Your task to perform on an android device: Toggle the flashlight Image 0: 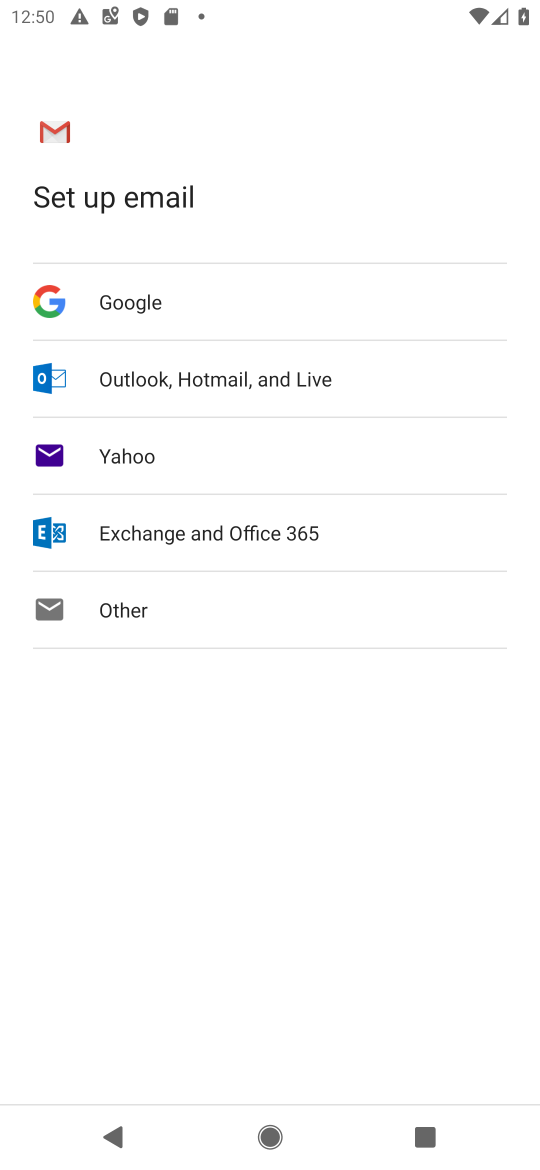
Step 0: press back button
Your task to perform on an android device: Toggle the flashlight Image 1: 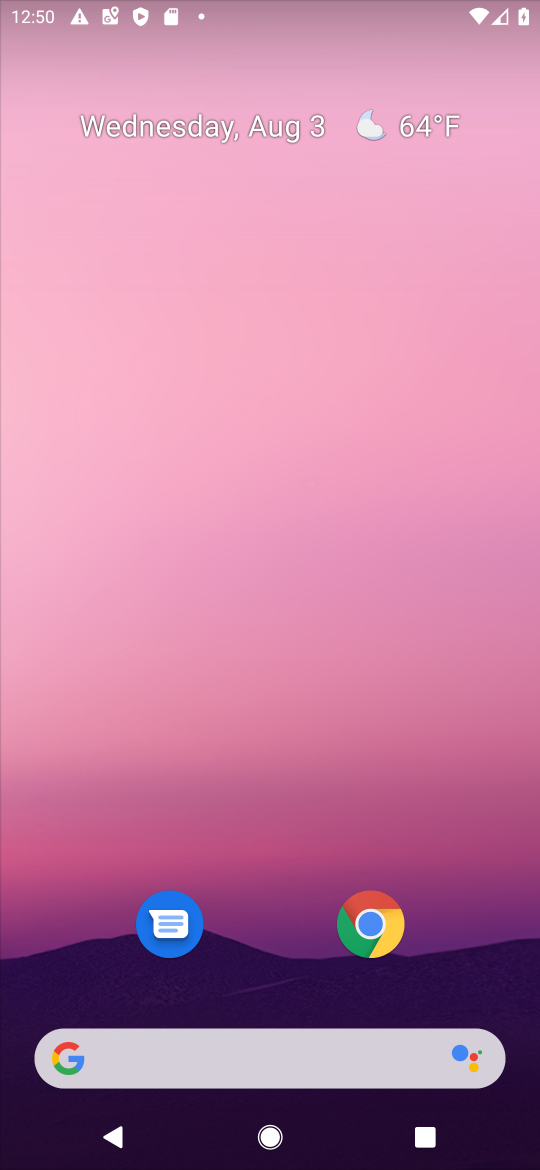
Step 1: drag from (270, 961) to (367, 102)
Your task to perform on an android device: Toggle the flashlight Image 2: 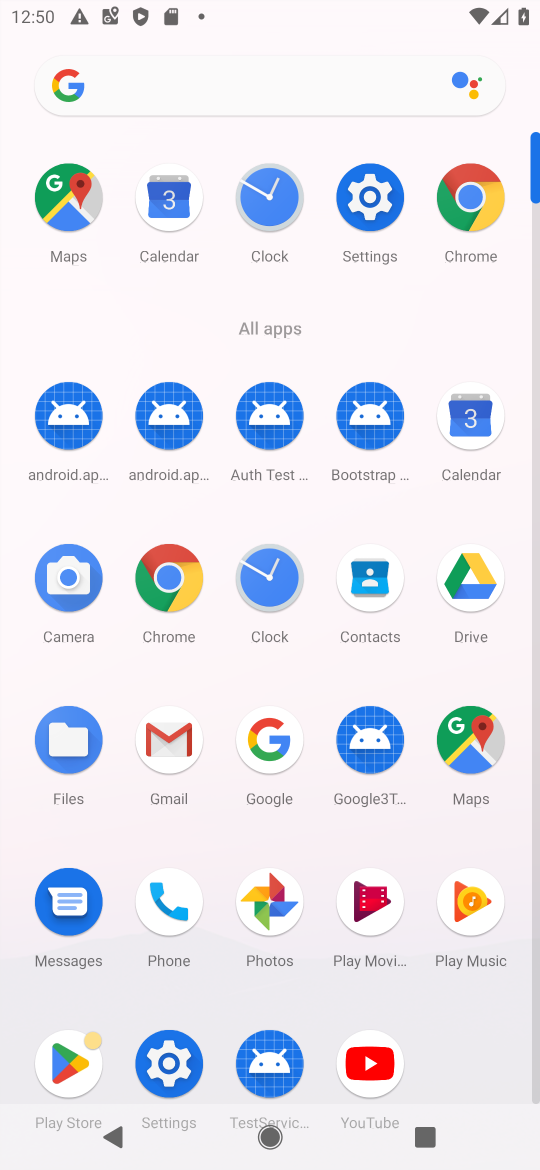
Step 2: click (369, 200)
Your task to perform on an android device: Toggle the flashlight Image 3: 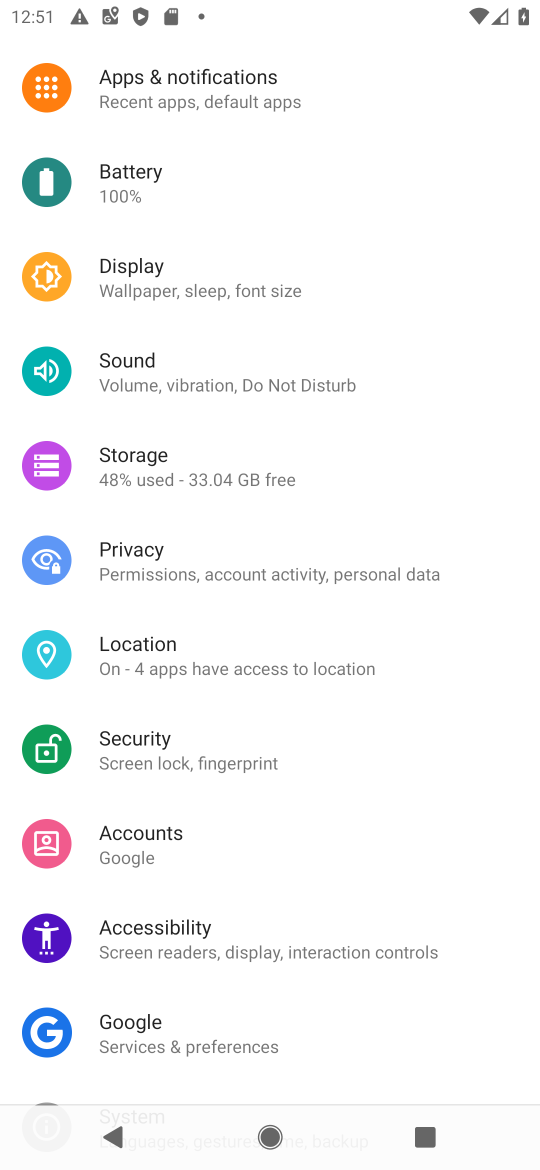
Step 3: drag from (294, 218) to (316, 917)
Your task to perform on an android device: Toggle the flashlight Image 4: 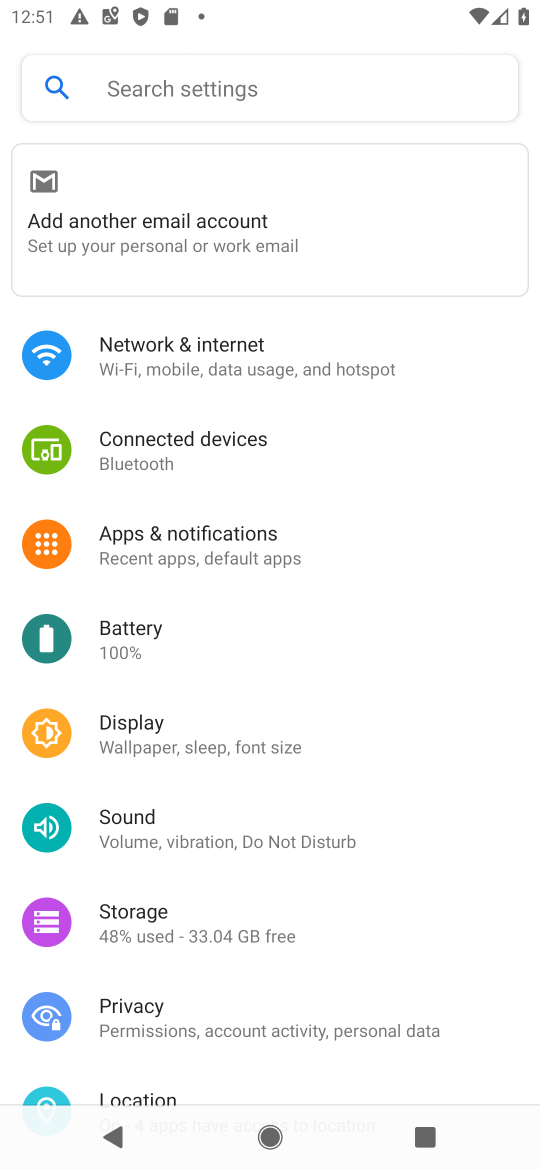
Step 4: click (226, 95)
Your task to perform on an android device: Toggle the flashlight Image 5: 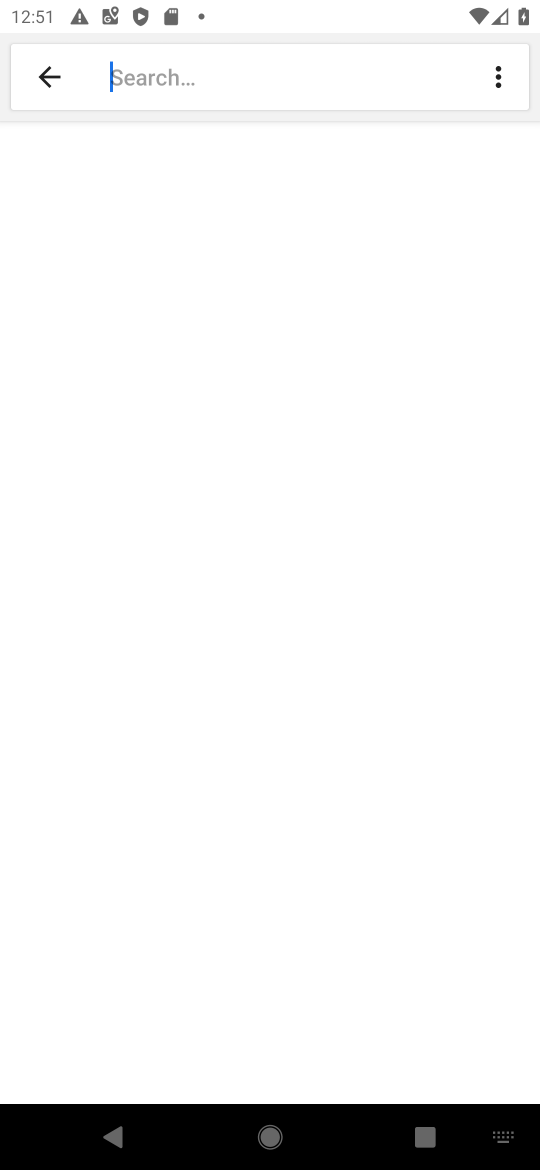
Step 5: type "flashlight"
Your task to perform on an android device: Toggle the flashlight Image 6: 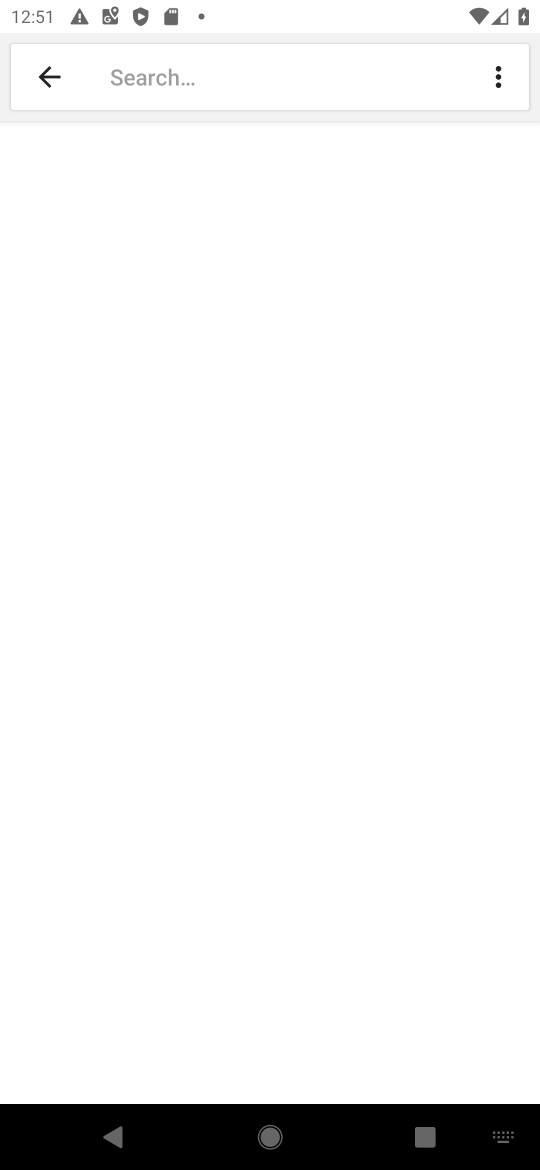
Step 6: click (405, 358)
Your task to perform on an android device: Toggle the flashlight Image 7: 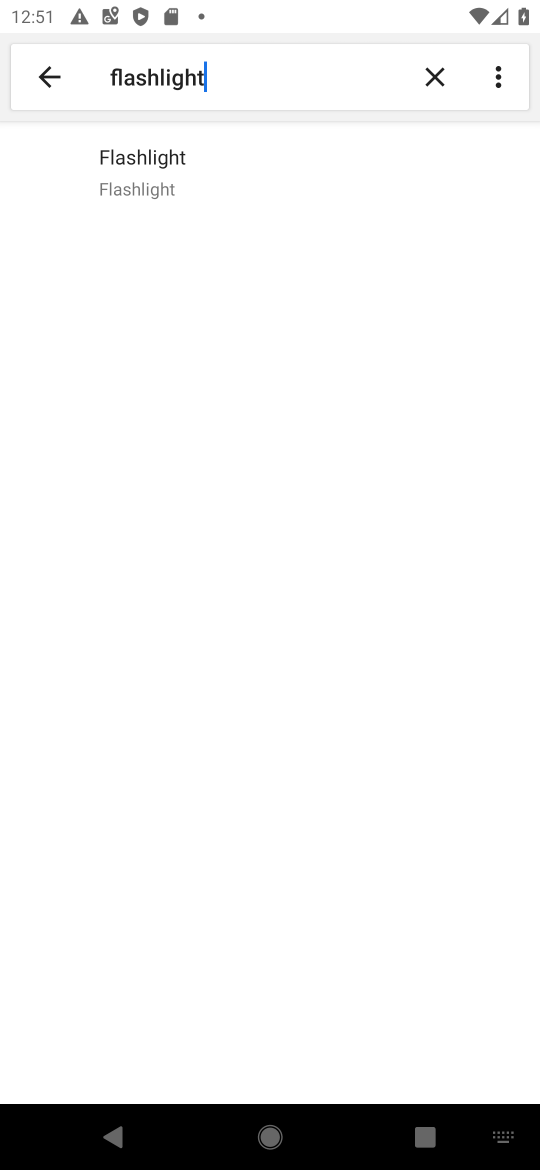
Step 7: click (194, 146)
Your task to perform on an android device: Toggle the flashlight Image 8: 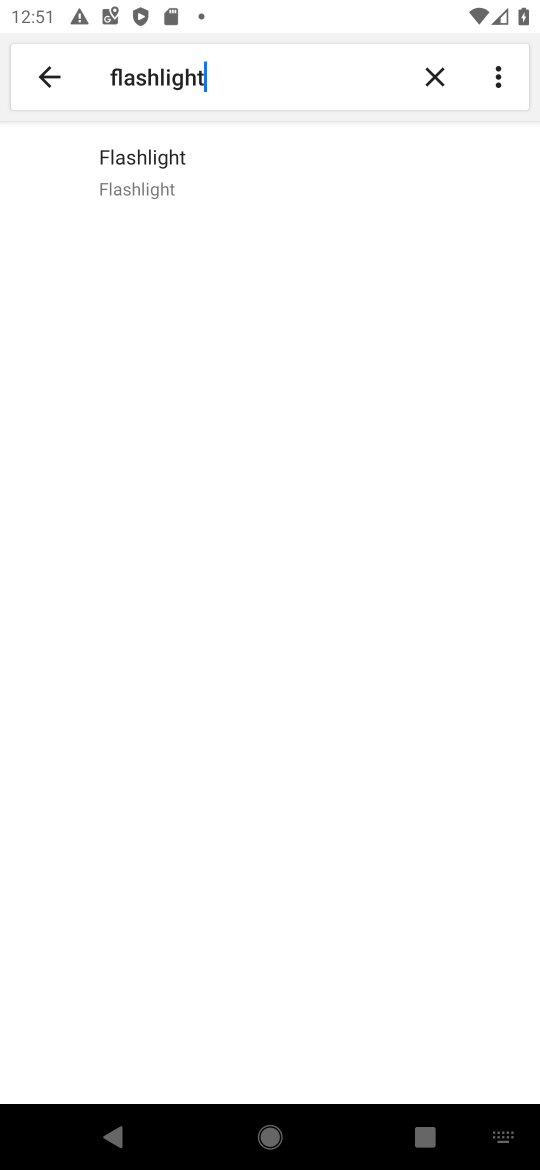
Step 8: task complete